Your task to perform on an android device: open app "McDonald's" Image 0: 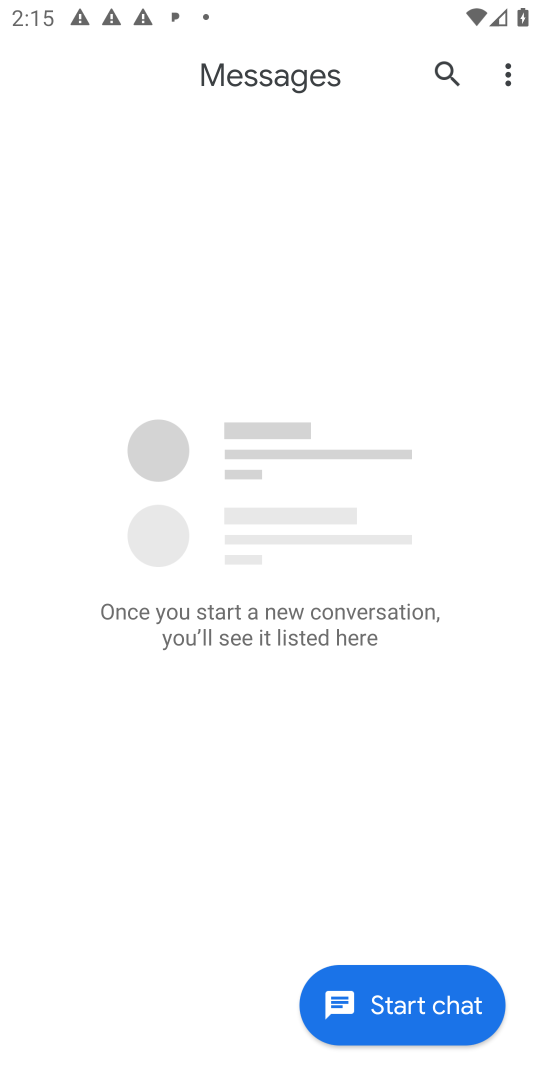
Step 0: press home button
Your task to perform on an android device: open app "McDonald's" Image 1: 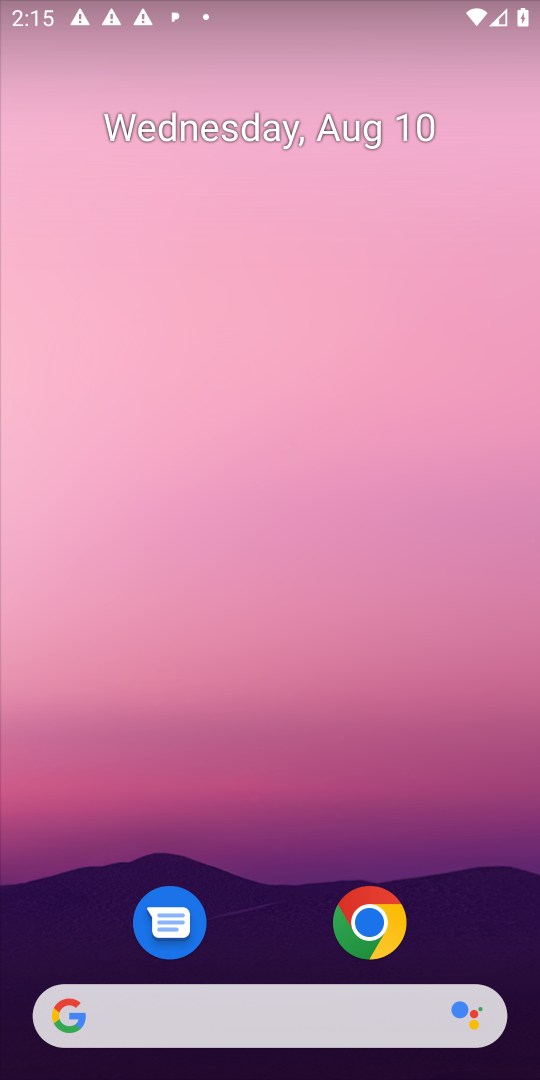
Step 1: drag from (245, 886) to (298, 284)
Your task to perform on an android device: open app "McDonald's" Image 2: 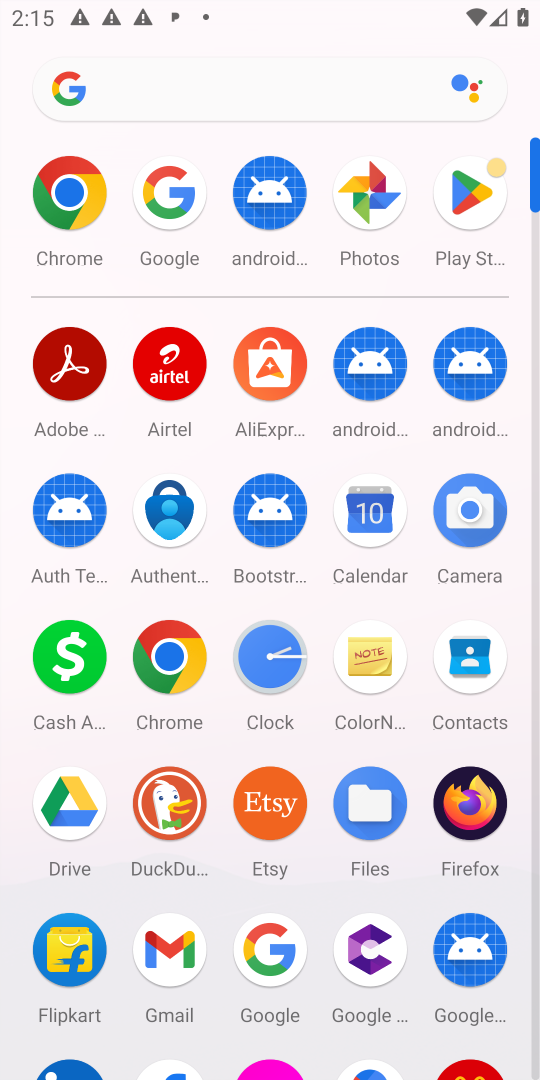
Step 2: click (458, 194)
Your task to perform on an android device: open app "McDonald's" Image 3: 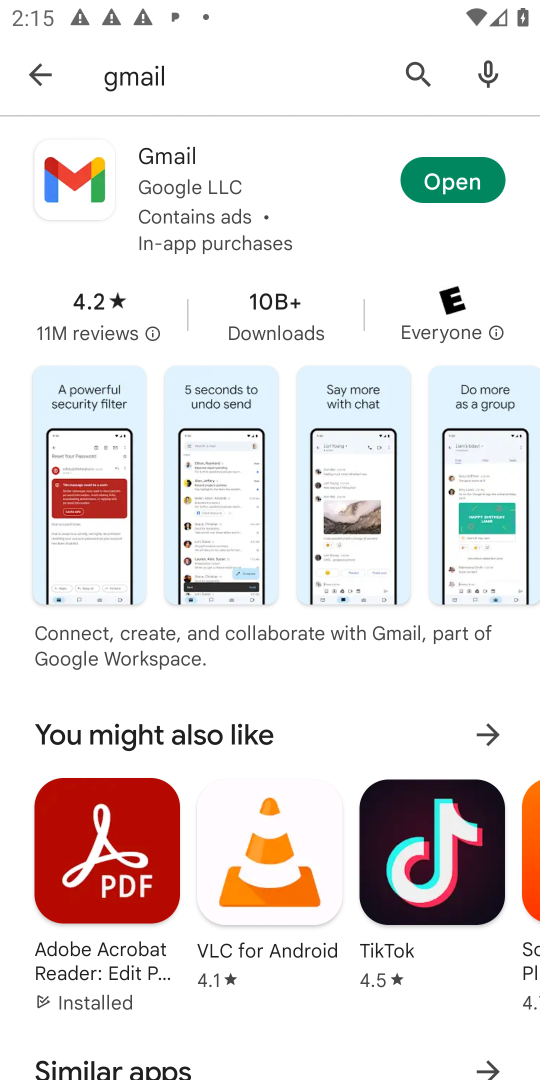
Step 3: click (29, 89)
Your task to perform on an android device: open app "McDonald's" Image 4: 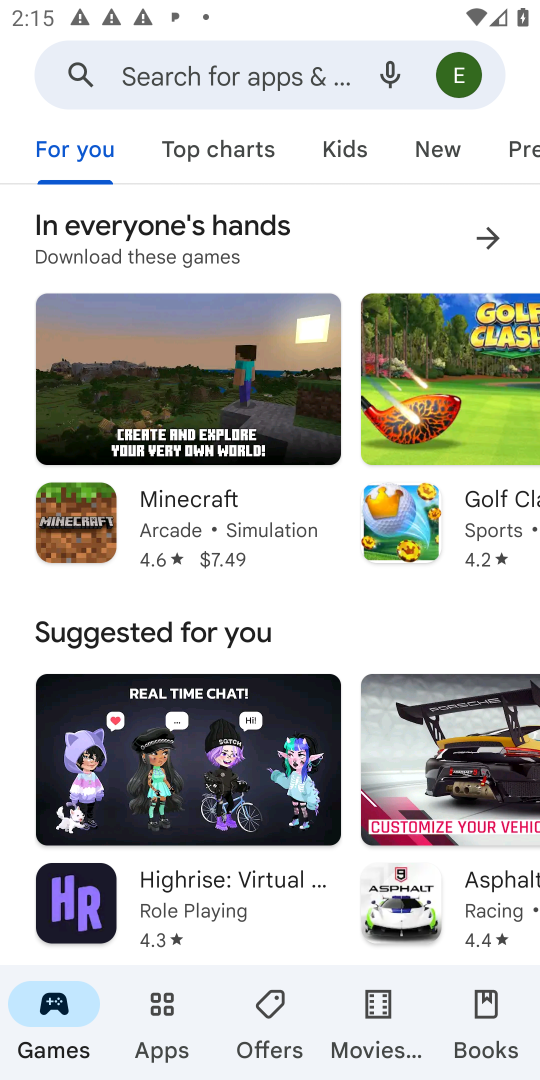
Step 4: click (223, 92)
Your task to perform on an android device: open app "McDonald's" Image 5: 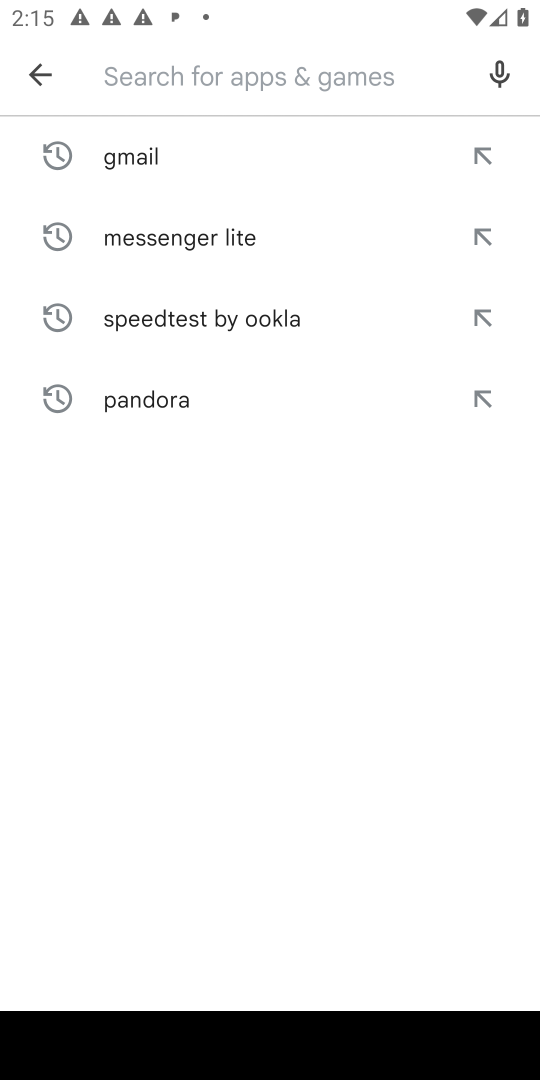
Step 5: type "McDonald's"
Your task to perform on an android device: open app "McDonald's" Image 6: 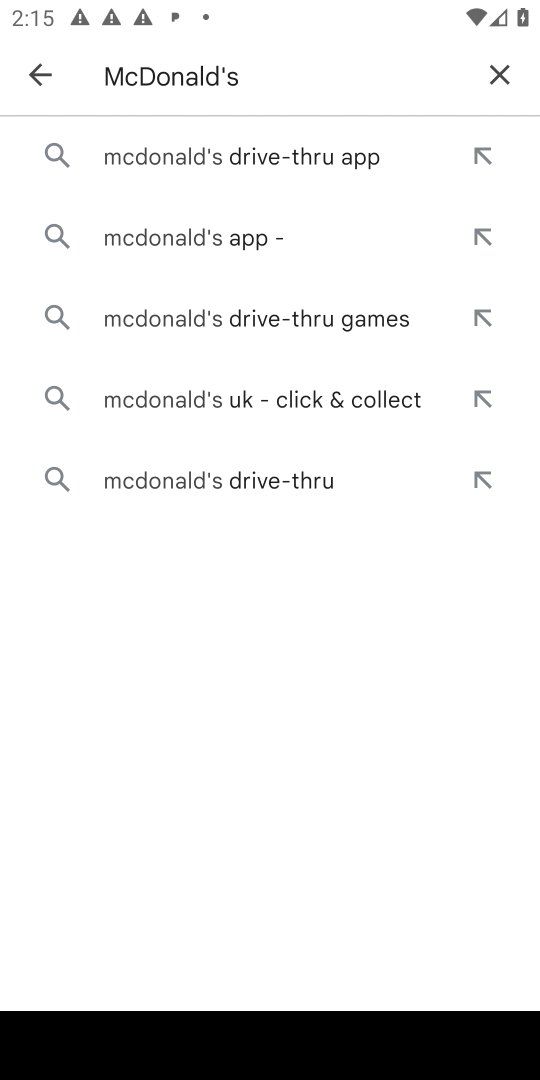
Step 6: click (169, 246)
Your task to perform on an android device: open app "McDonald's" Image 7: 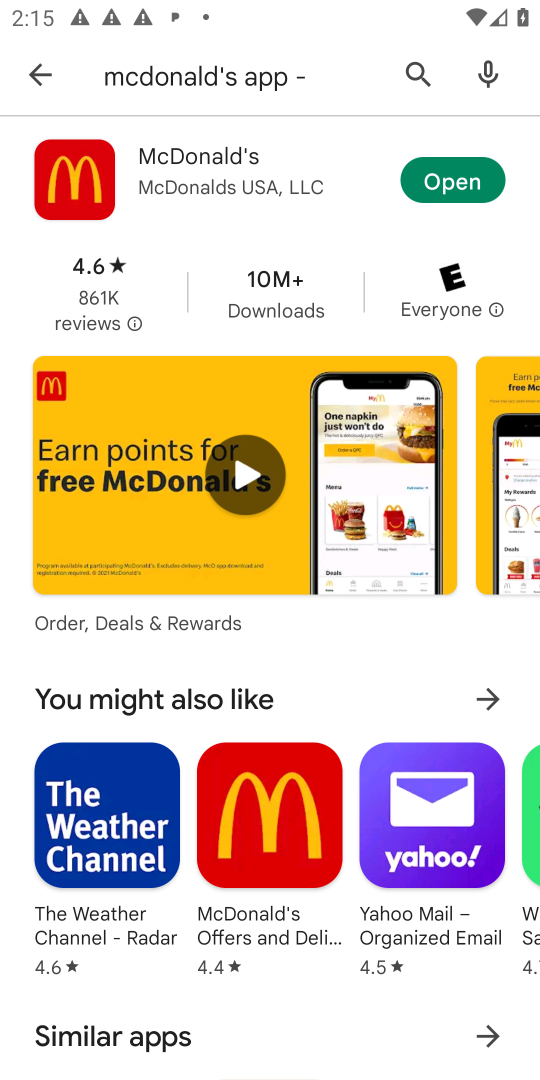
Step 7: click (459, 181)
Your task to perform on an android device: open app "McDonald's" Image 8: 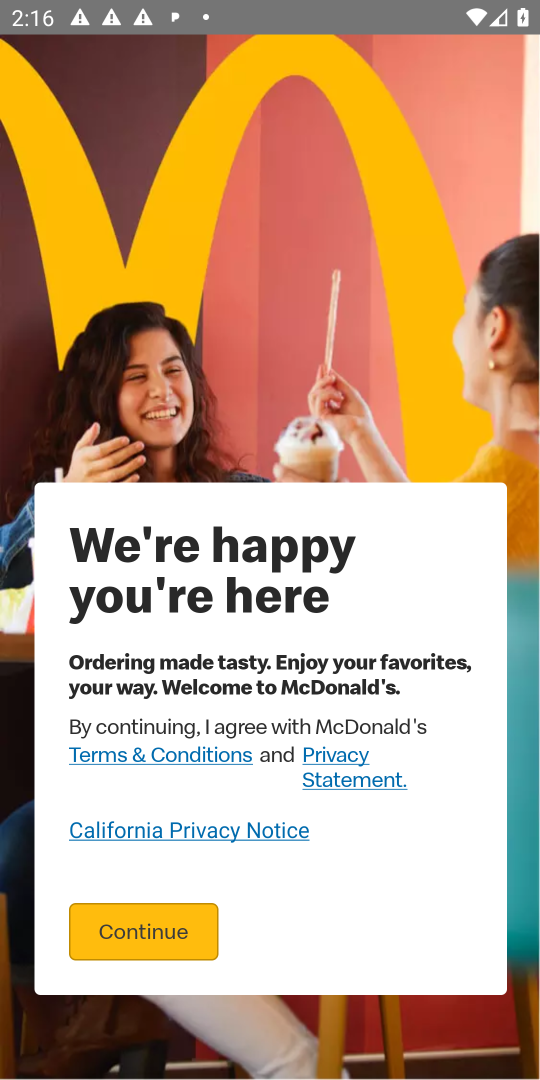
Step 8: click (129, 931)
Your task to perform on an android device: open app "McDonald's" Image 9: 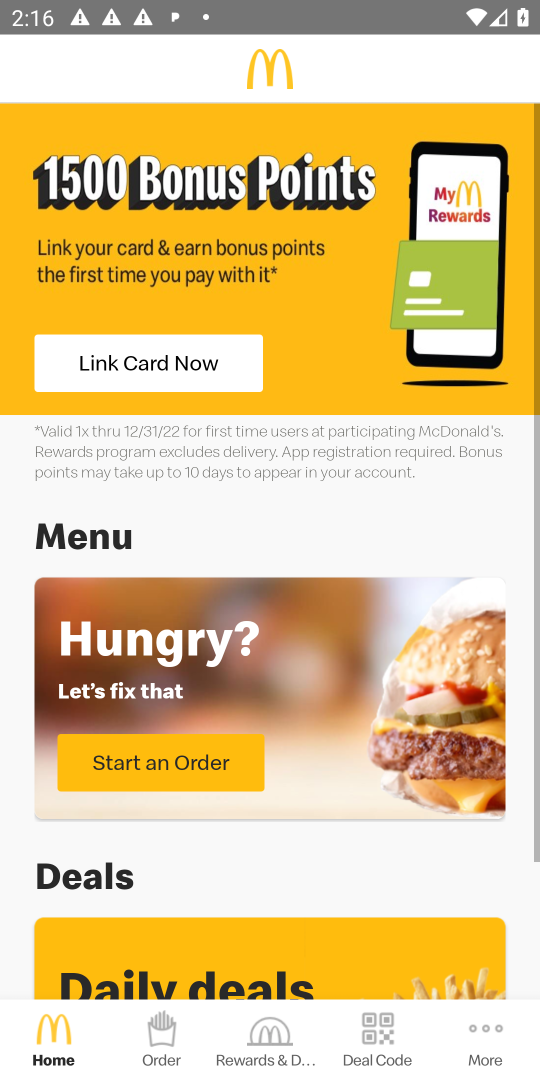
Step 9: task complete